Your task to perform on an android device: toggle sleep mode Image 0: 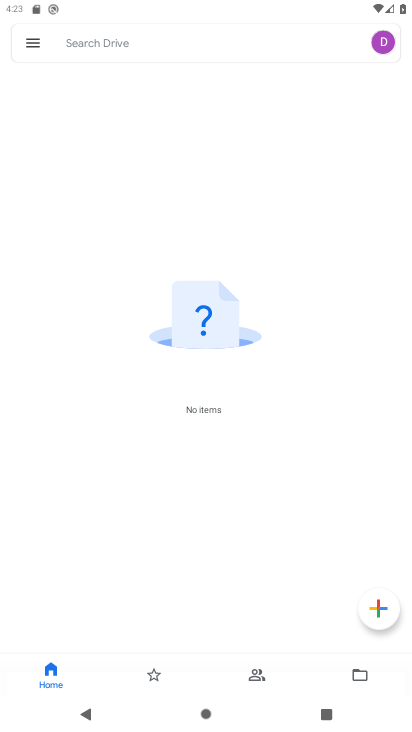
Step 0: press home button
Your task to perform on an android device: toggle sleep mode Image 1: 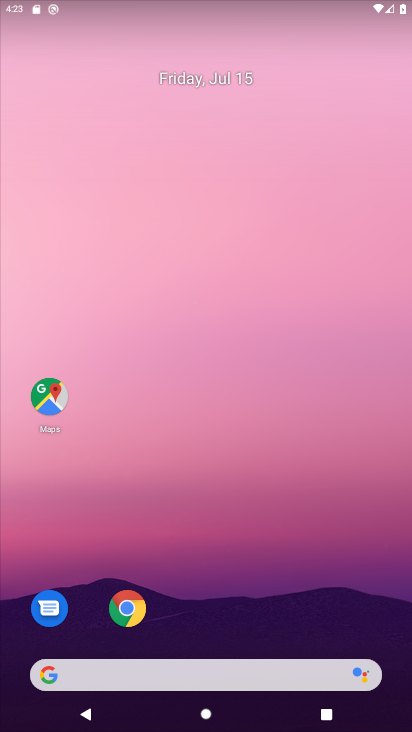
Step 1: drag from (204, 576) to (270, 9)
Your task to perform on an android device: toggle sleep mode Image 2: 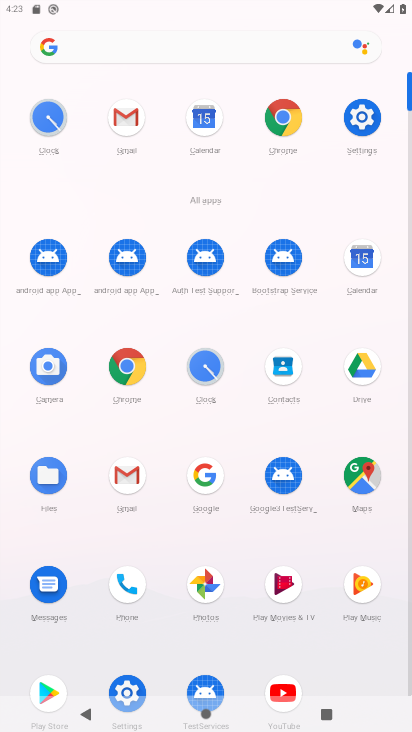
Step 2: click (358, 121)
Your task to perform on an android device: toggle sleep mode Image 3: 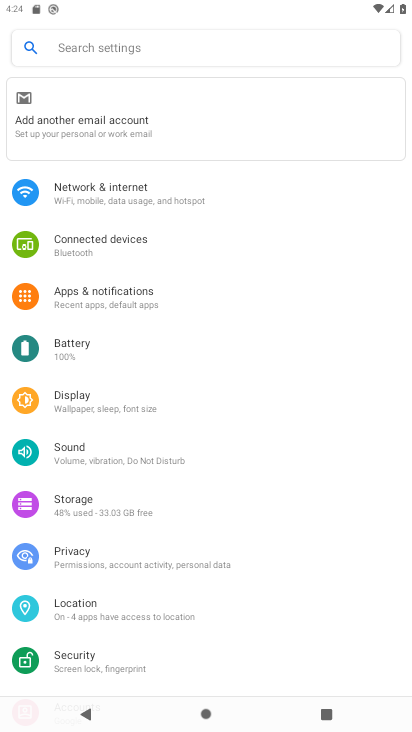
Step 3: click (192, 38)
Your task to perform on an android device: toggle sleep mode Image 4: 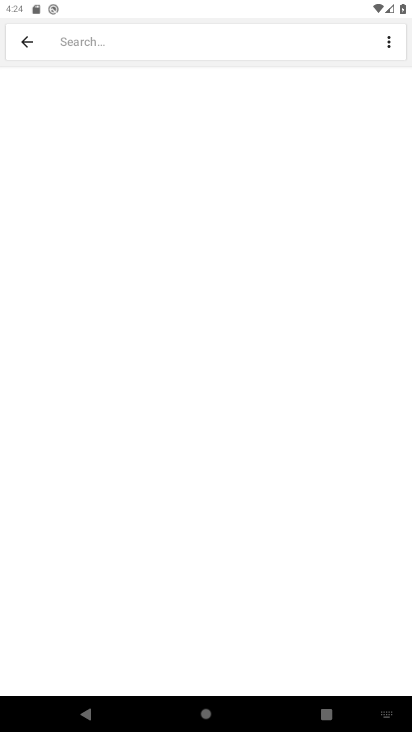
Step 4: type "sleep mode"
Your task to perform on an android device: toggle sleep mode Image 5: 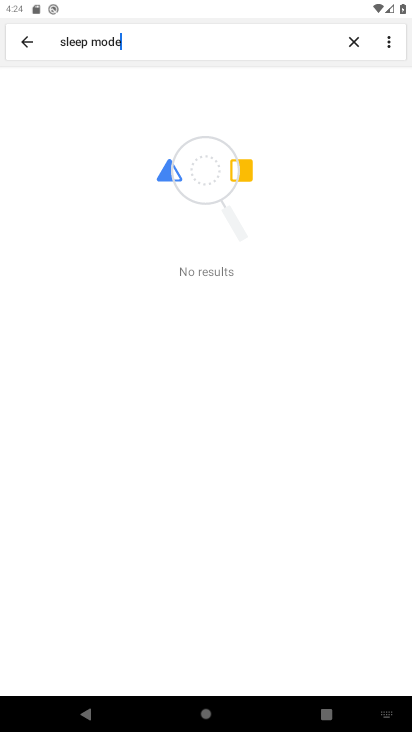
Step 5: task complete